Your task to perform on an android device: check android version Image 0: 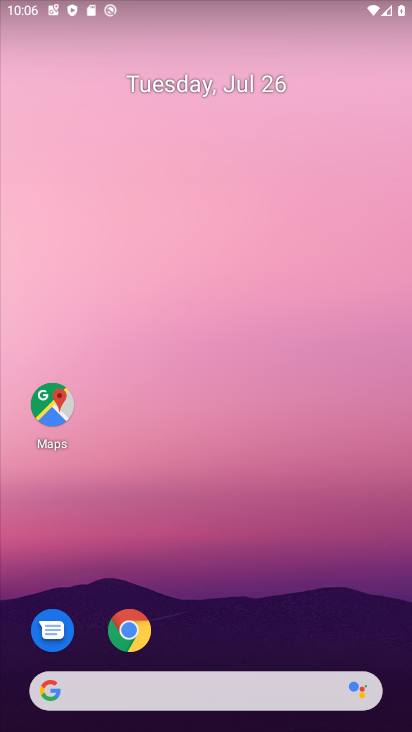
Step 0: drag from (362, 626) to (307, 176)
Your task to perform on an android device: check android version Image 1: 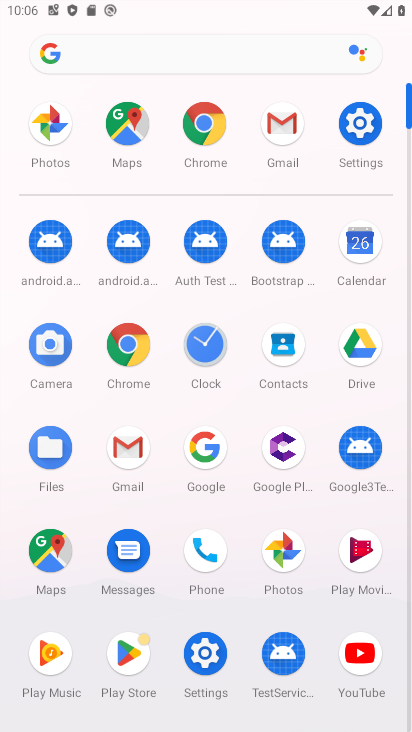
Step 1: click (201, 653)
Your task to perform on an android device: check android version Image 2: 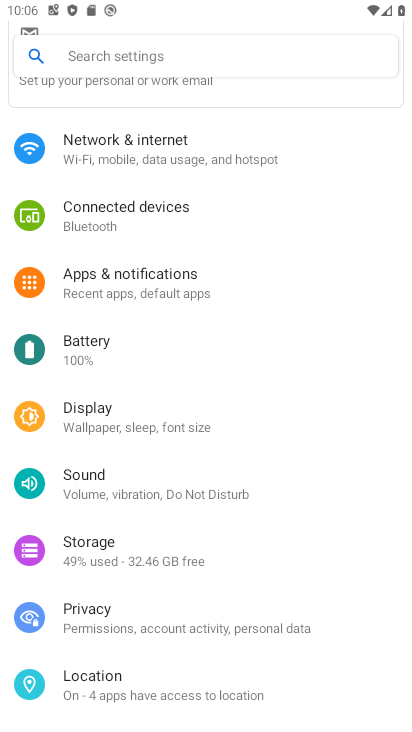
Step 2: drag from (230, 674) to (233, 364)
Your task to perform on an android device: check android version Image 3: 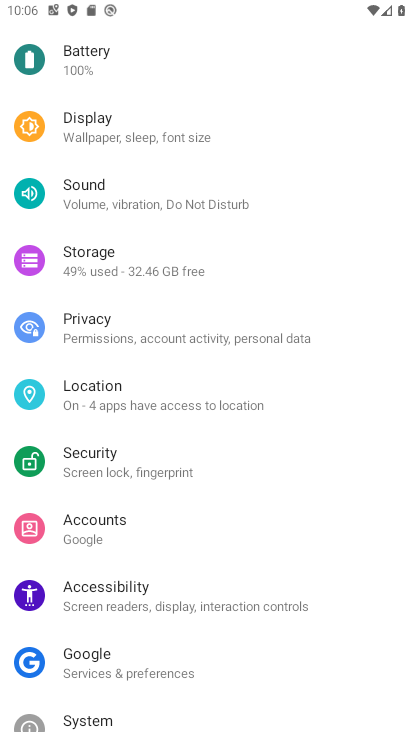
Step 3: drag from (260, 697) to (254, 334)
Your task to perform on an android device: check android version Image 4: 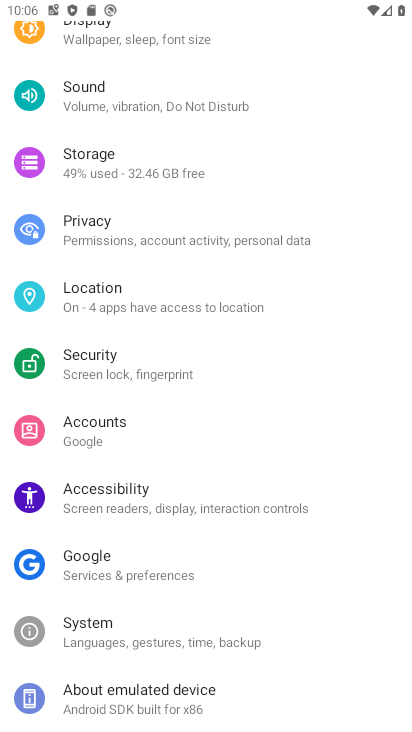
Step 4: click (108, 687)
Your task to perform on an android device: check android version Image 5: 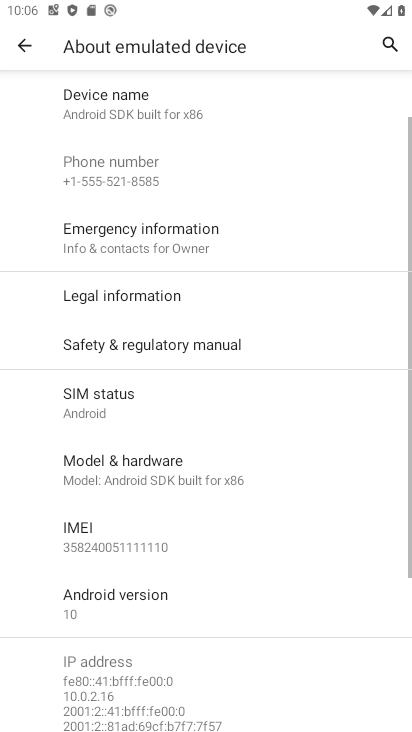
Step 5: drag from (232, 664) to (244, 330)
Your task to perform on an android device: check android version Image 6: 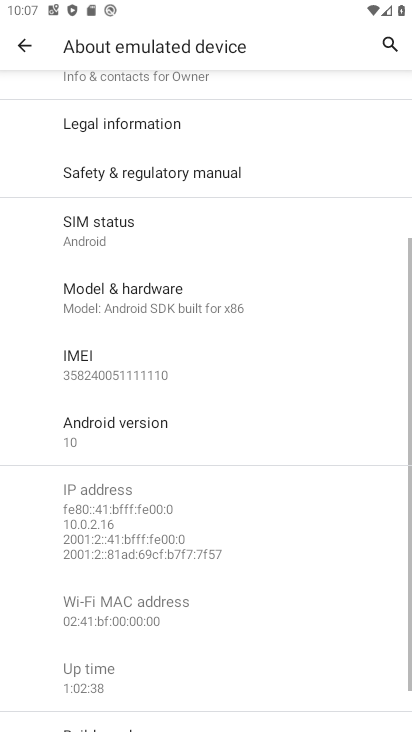
Step 6: click (117, 425)
Your task to perform on an android device: check android version Image 7: 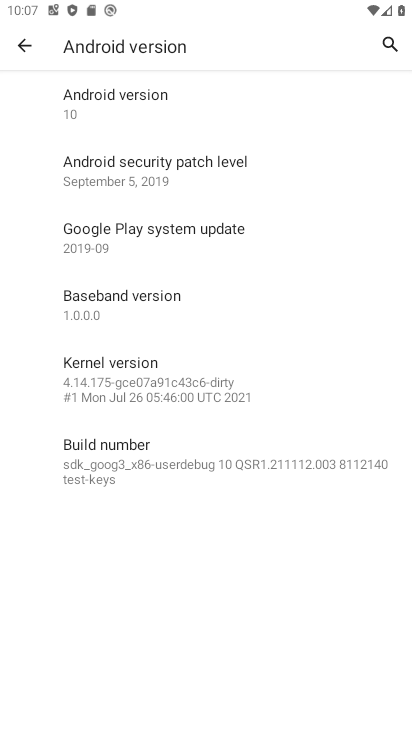
Step 7: task complete